Your task to perform on an android device: change notification settings in the gmail app Image 0: 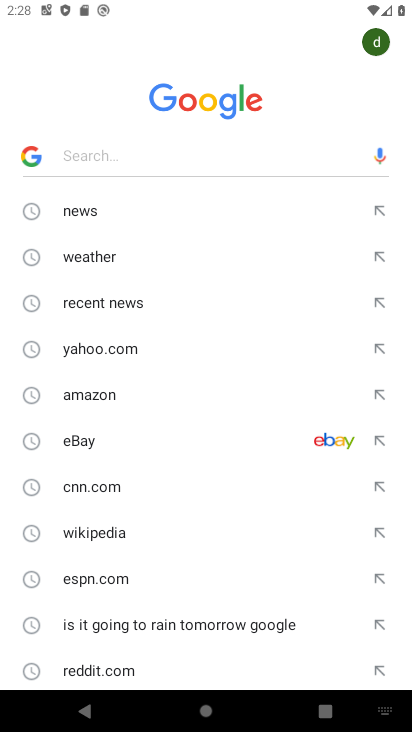
Step 0: drag from (334, 309) to (333, 581)
Your task to perform on an android device: change notification settings in the gmail app Image 1: 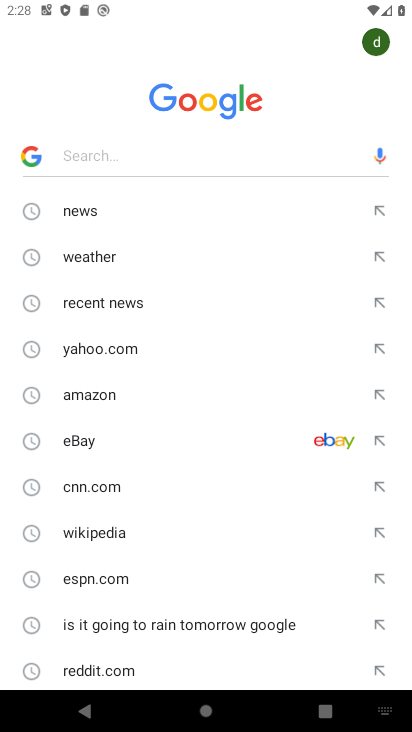
Step 1: drag from (355, 211) to (393, 568)
Your task to perform on an android device: change notification settings in the gmail app Image 2: 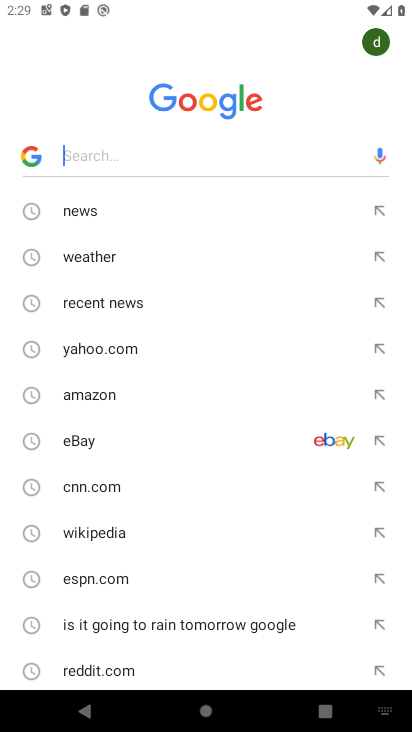
Step 2: press home button
Your task to perform on an android device: change notification settings in the gmail app Image 3: 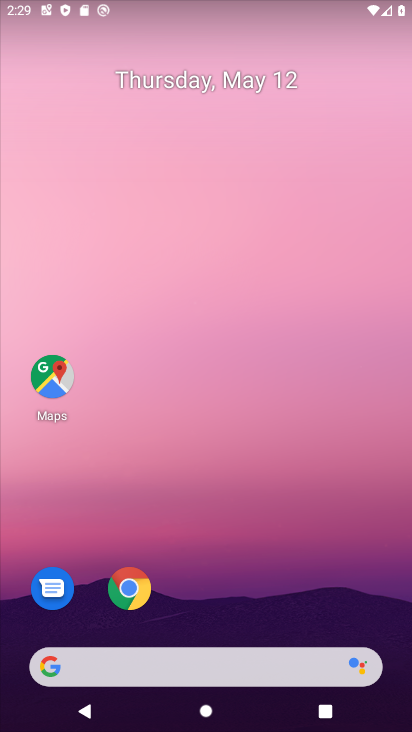
Step 3: drag from (251, 546) to (247, 62)
Your task to perform on an android device: change notification settings in the gmail app Image 4: 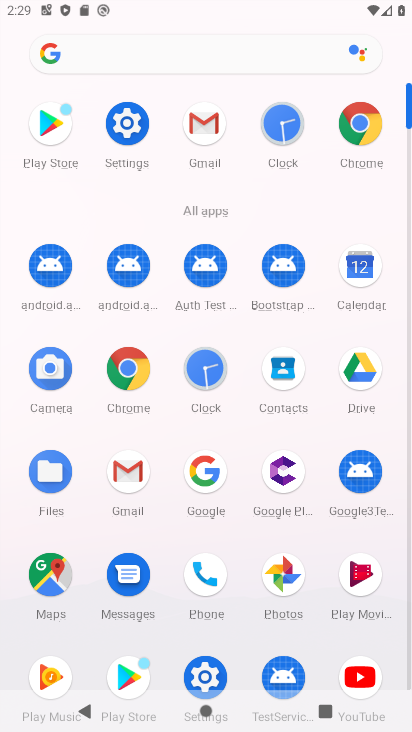
Step 4: click (204, 125)
Your task to perform on an android device: change notification settings in the gmail app Image 5: 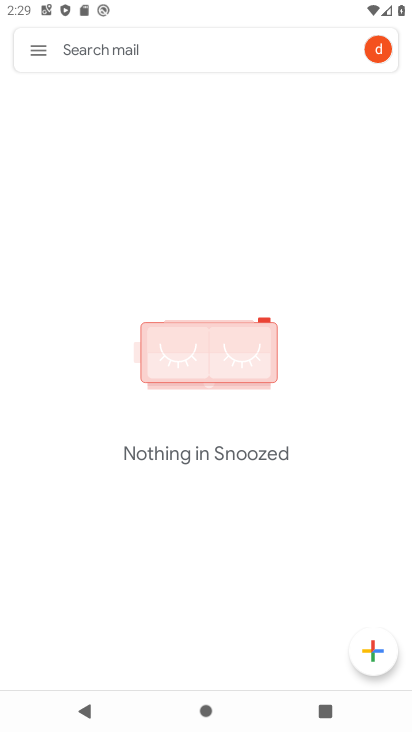
Step 5: click (34, 51)
Your task to perform on an android device: change notification settings in the gmail app Image 6: 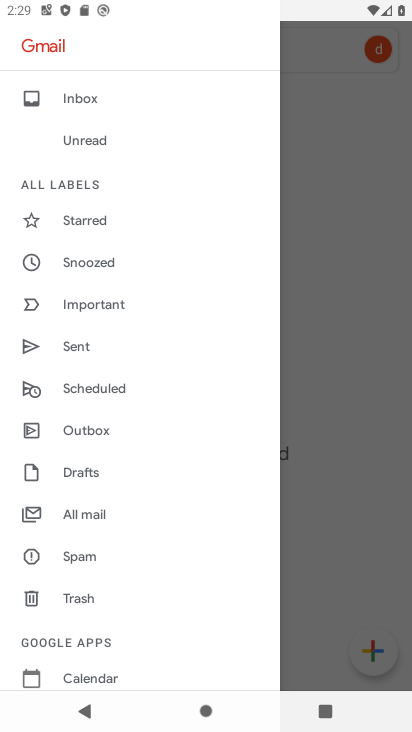
Step 6: drag from (106, 611) to (116, 313)
Your task to perform on an android device: change notification settings in the gmail app Image 7: 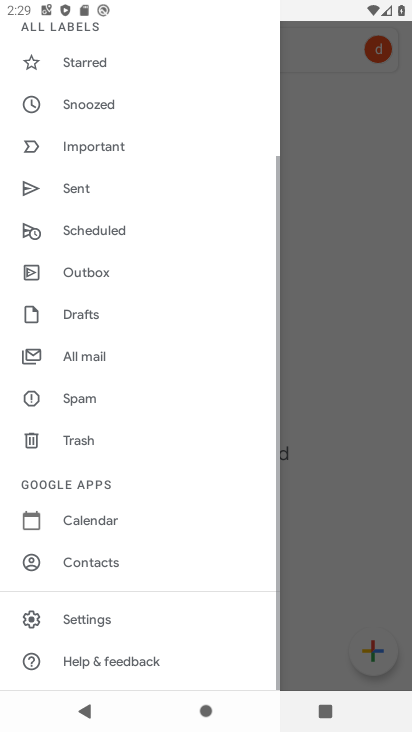
Step 7: click (78, 620)
Your task to perform on an android device: change notification settings in the gmail app Image 8: 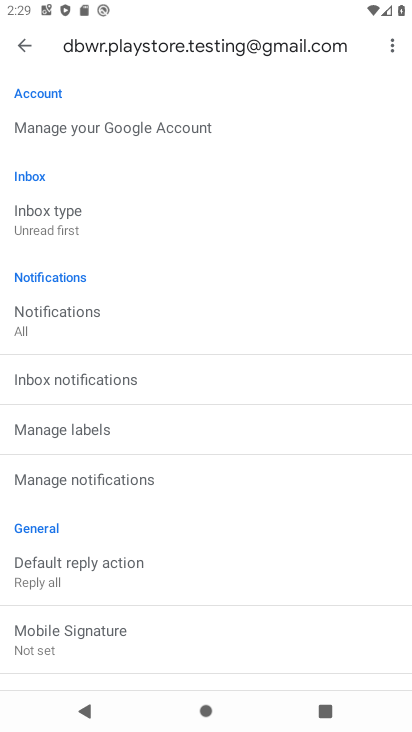
Step 8: click (73, 322)
Your task to perform on an android device: change notification settings in the gmail app Image 9: 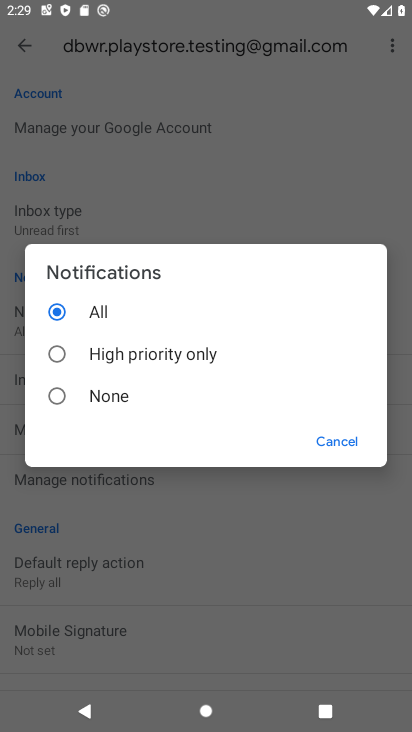
Step 9: click (51, 395)
Your task to perform on an android device: change notification settings in the gmail app Image 10: 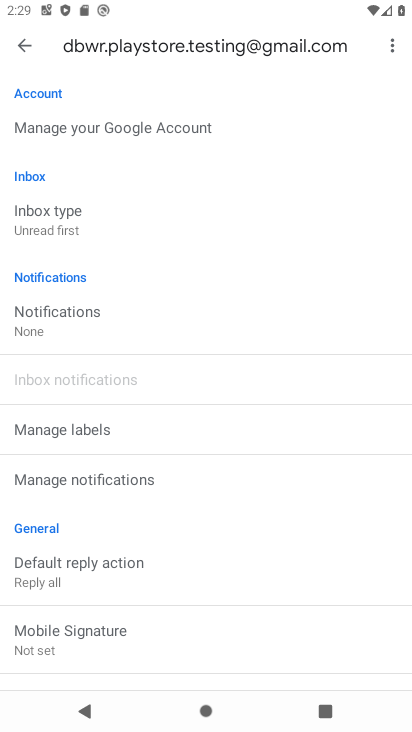
Step 10: task complete